Your task to perform on an android device: turn off translation in the chrome app Image 0: 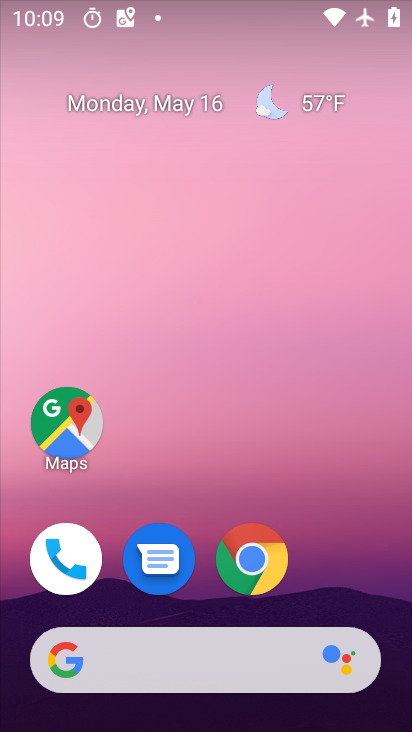
Step 0: click (252, 554)
Your task to perform on an android device: turn off translation in the chrome app Image 1: 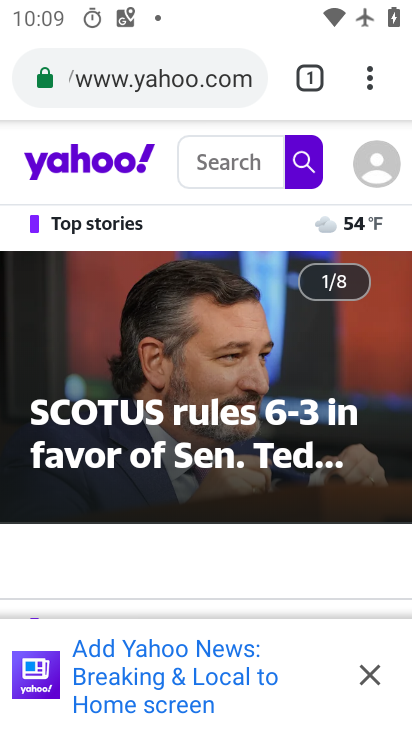
Step 1: drag from (372, 70) to (224, 618)
Your task to perform on an android device: turn off translation in the chrome app Image 2: 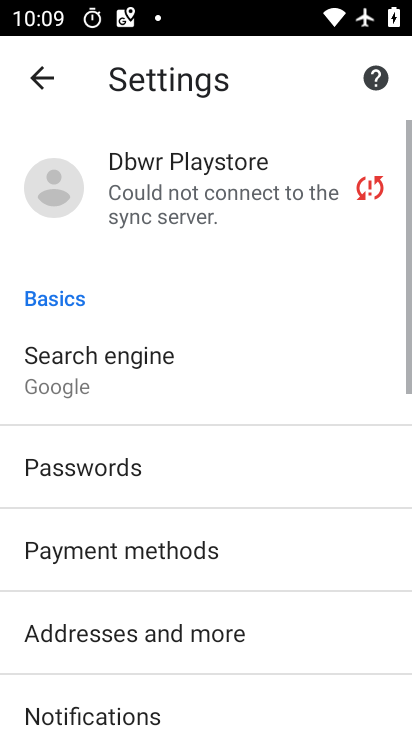
Step 2: drag from (207, 524) to (266, 63)
Your task to perform on an android device: turn off translation in the chrome app Image 3: 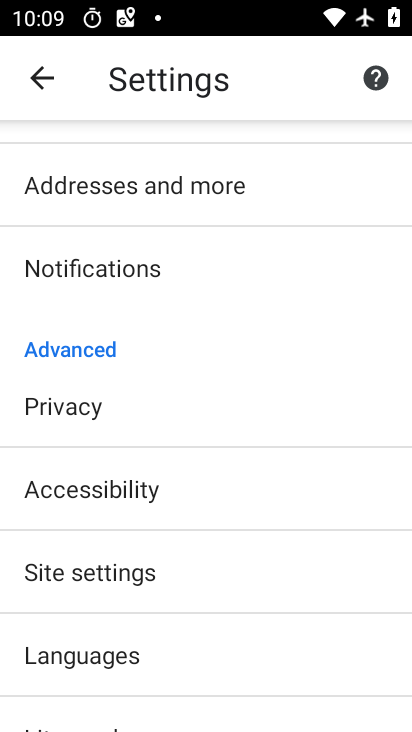
Step 3: drag from (111, 626) to (200, 340)
Your task to perform on an android device: turn off translation in the chrome app Image 4: 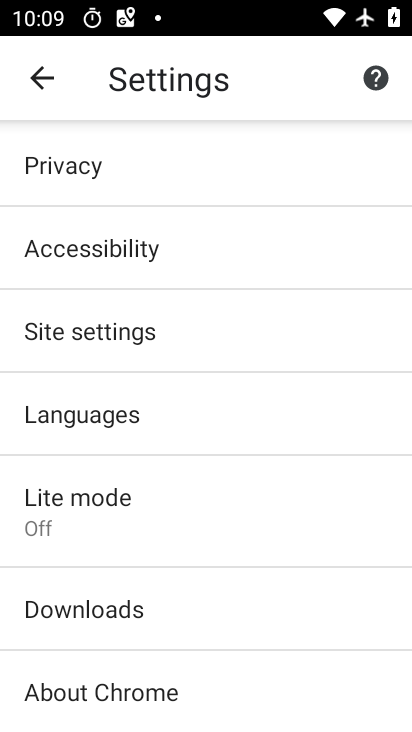
Step 4: click (113, 424)
Your task to perform on an android device: turn off translation in the chrome app Image 5: 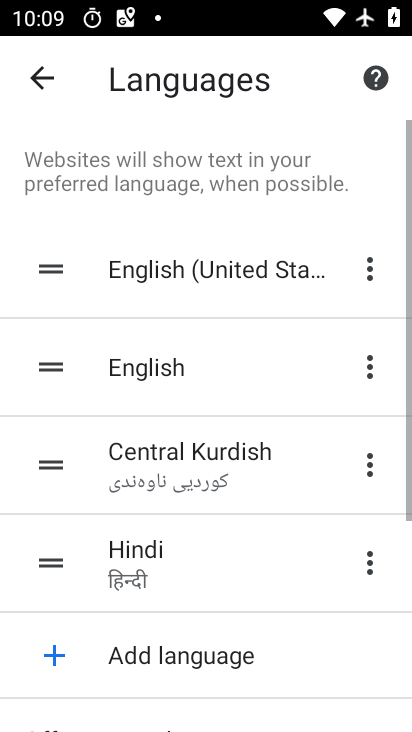
Step 5: drag from (290, 646) to (283, 185)
Your task to perform on an android device: turn off translation in the chrome app Image 6: 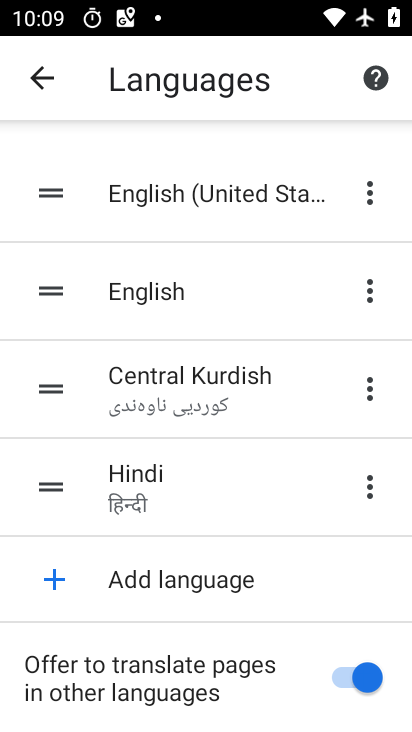
Step 6: click (347, 686)
Your task to perform on an android device: turn off translation in the chrome app Image 7: 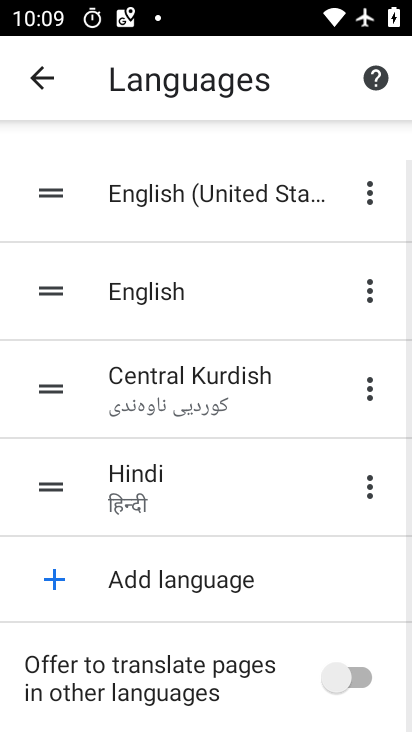
Step 7: task complete